Your task to perform on an android device: Add apple airpods to the cart on target, then select checkout. Image 0: 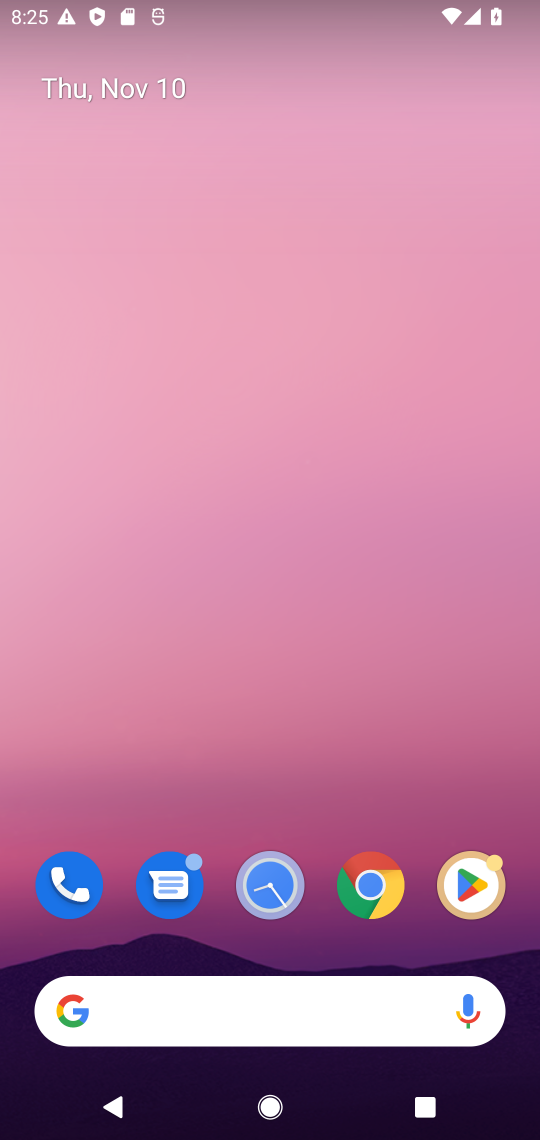
Step 0: click (368, 904)
Your task to perform on an android device: Add apple airpods to the cart on target, then select checkout. Image 1: 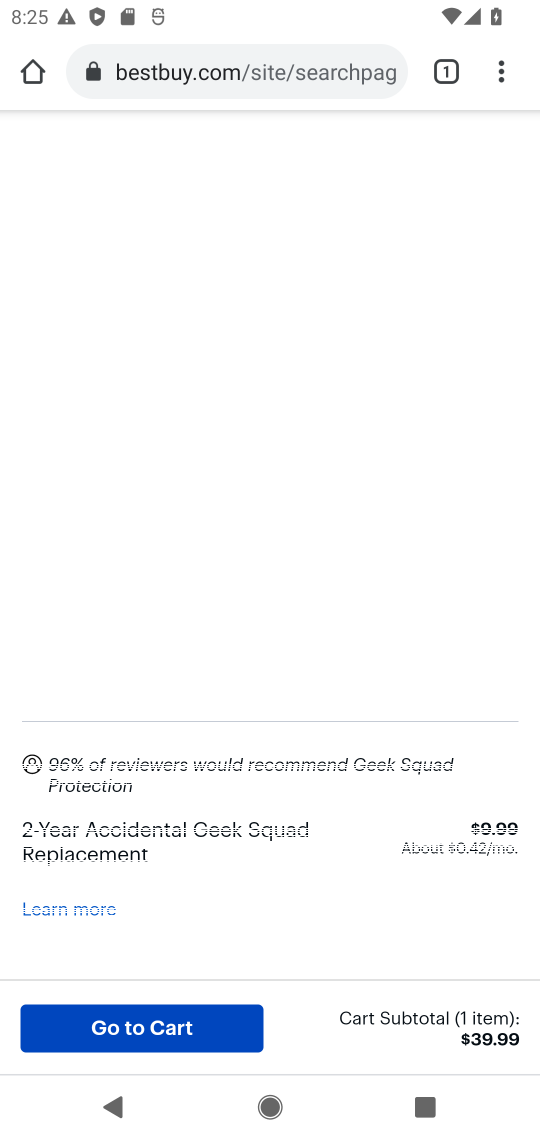
Step 1: click (436, 63)
Your task to perform on an android device: Add apple airpods to the cart on target, then select checkout. Image 2: 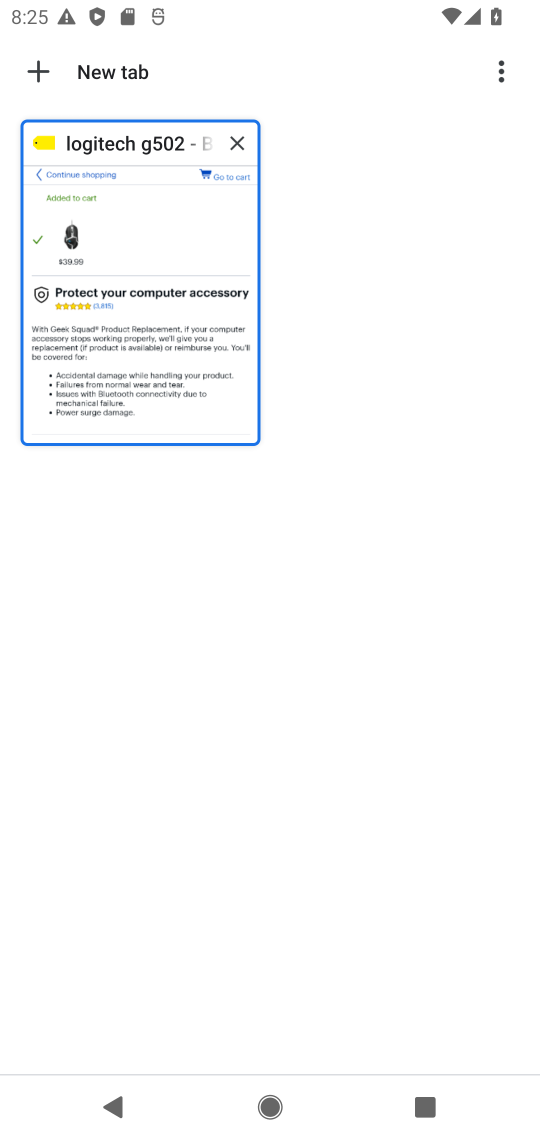
Step 2: click (37, 67)
Your task to perform on an android device: Add apple airpods to the cart on target, then select checkout. Image 3: 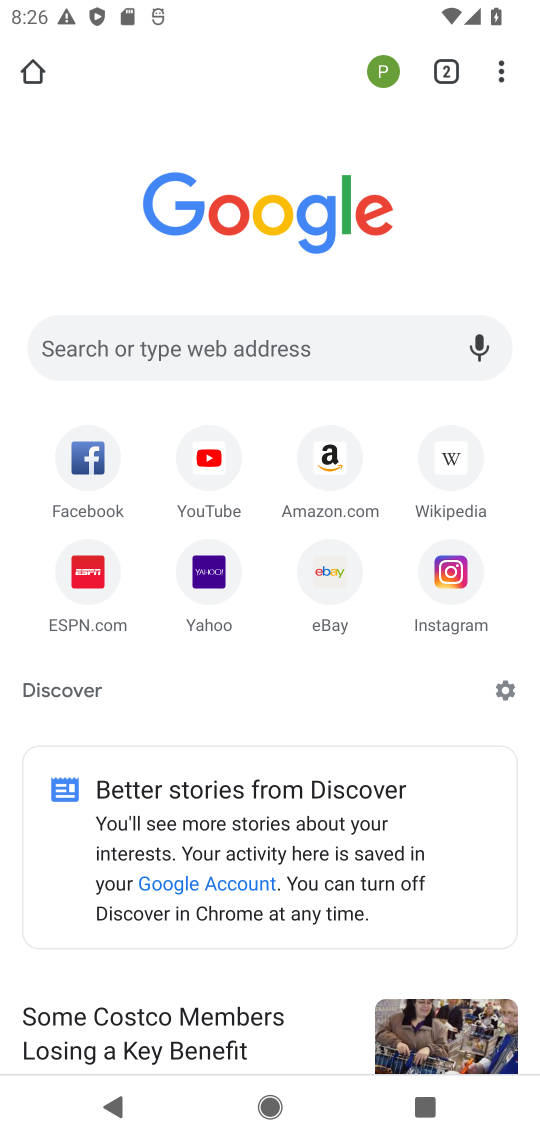
Step 3: click (120, 357)
Your task to perform on an android device: Add apple airpods to the cart on target, then select checkout. Image 4: 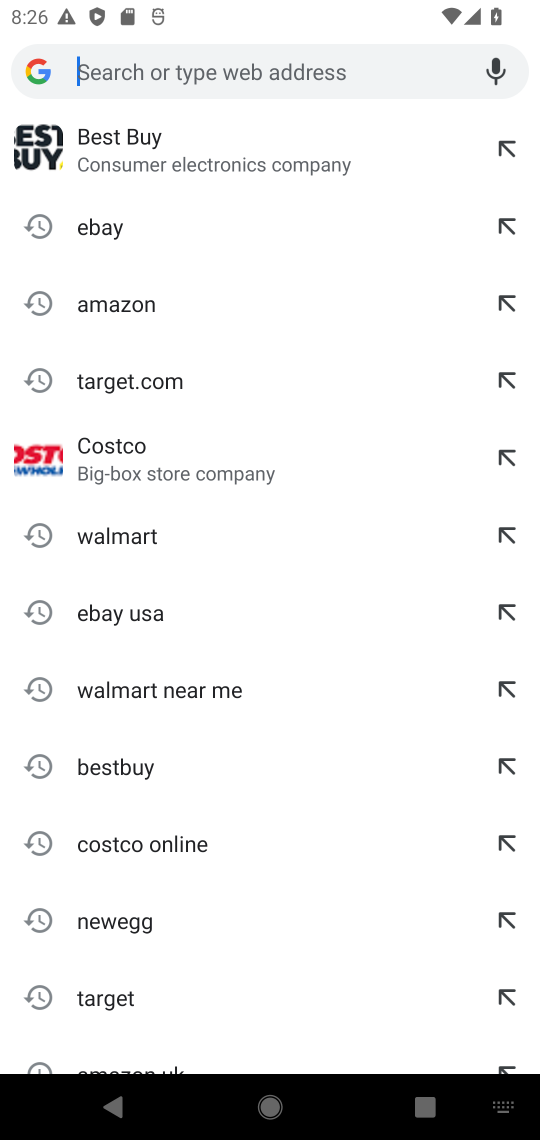
Step 4: click (131, 387)
Your task to perform on an android device: Add apple airpods to the cart on target, then select checkout. Image 5: 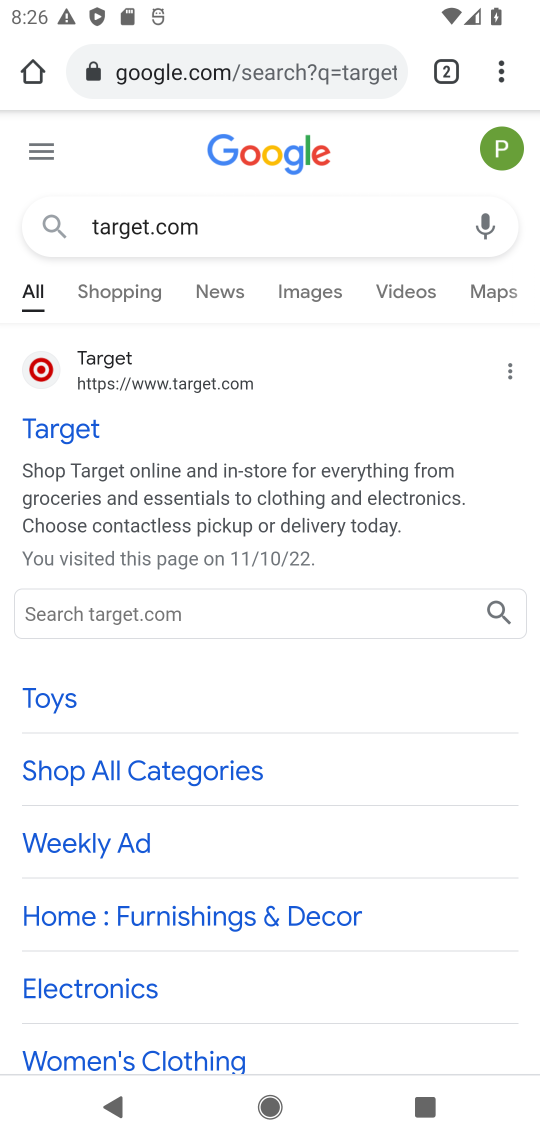
Step 5: click (99, 602)
Your task to perform on an android device: Add apple airpods to the cart on target, then select checkout. Image 6: 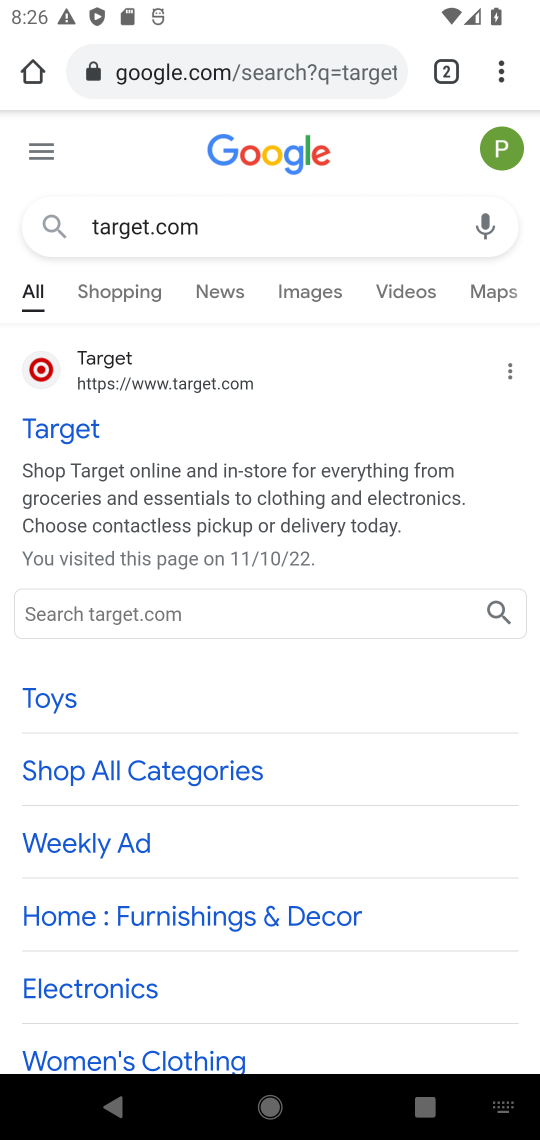
Step 6: type "apple airpods "
Your task to perform on an android device: Add apple airpods to the cart on target, then select checkout. Image 7: 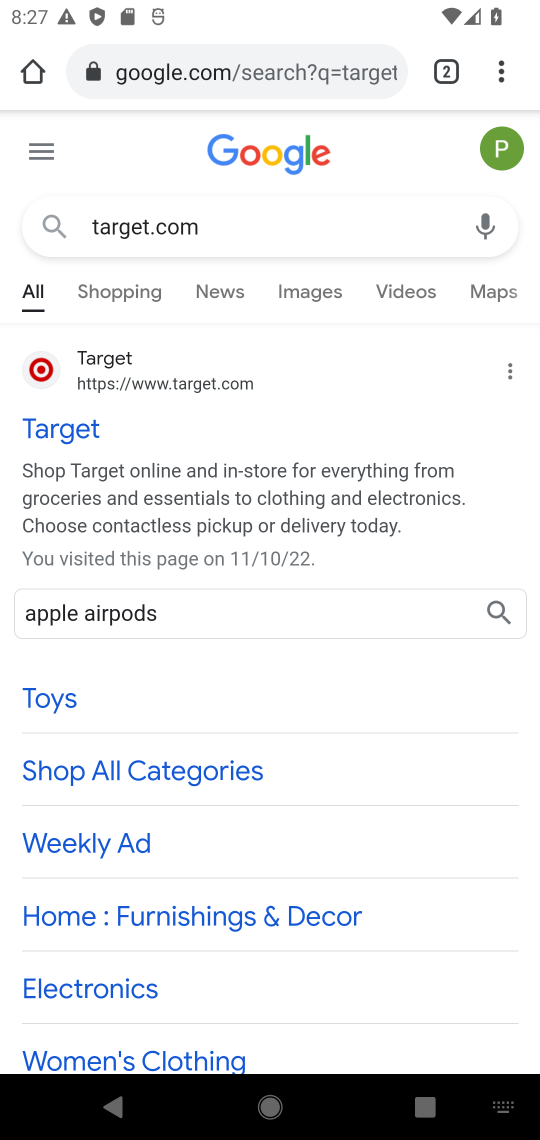
Step 7: click (505, 608)
Your task to perform on an android device: Add apple airpods to the cart on target, then select checkout. Image 8: 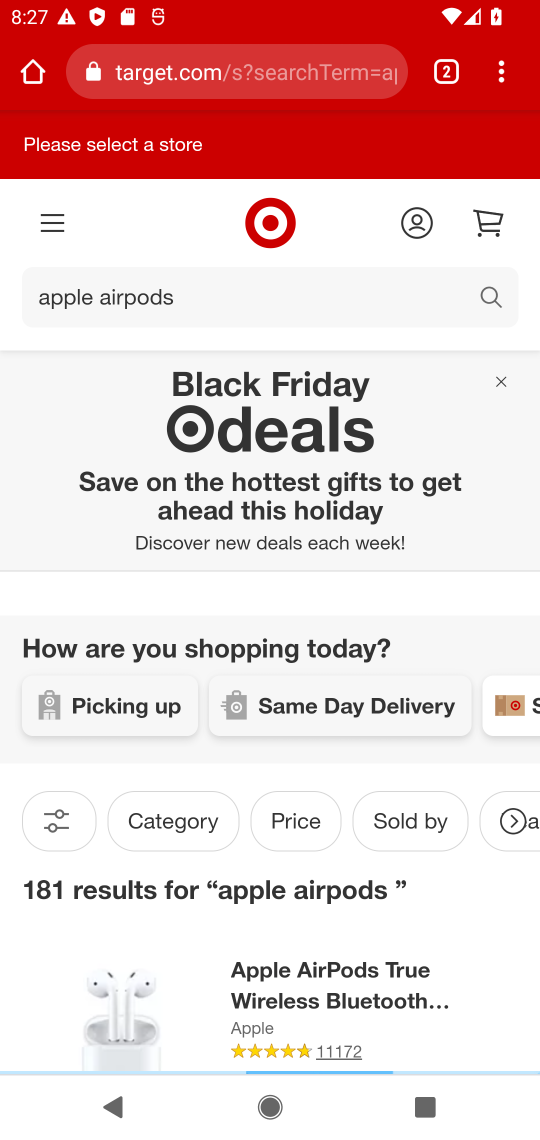
Step 8: drag from (344, 783) to (530, 348)
Your task to perform on an android device: Add apple airpods to the cart on target, then select checkout. Image 9: 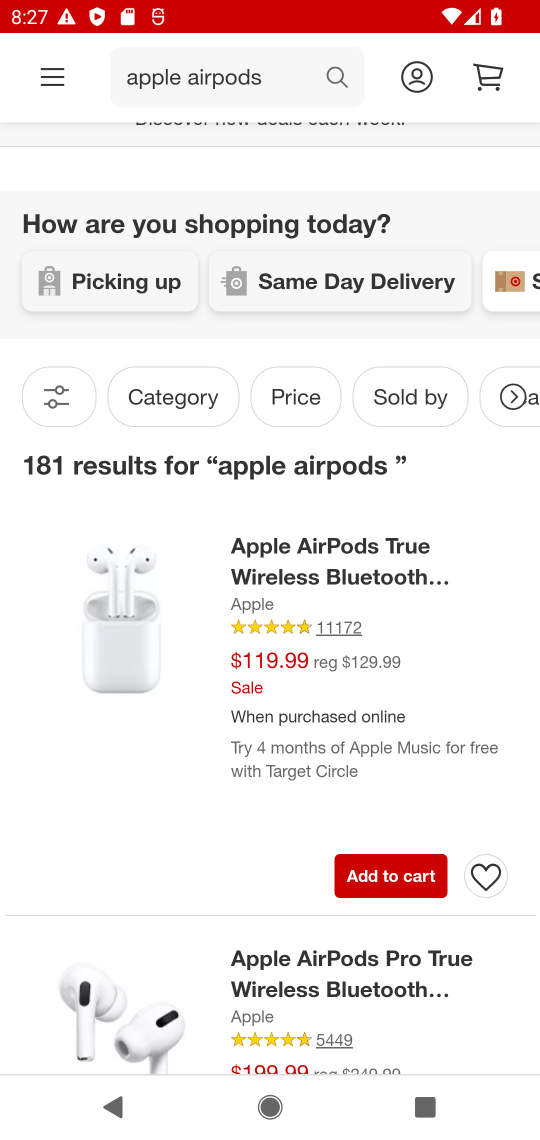
Step 9: click (405, 875)
Your task to perform on an android device: Add apple airpods to the cart on target, then select checkout. Image 10: 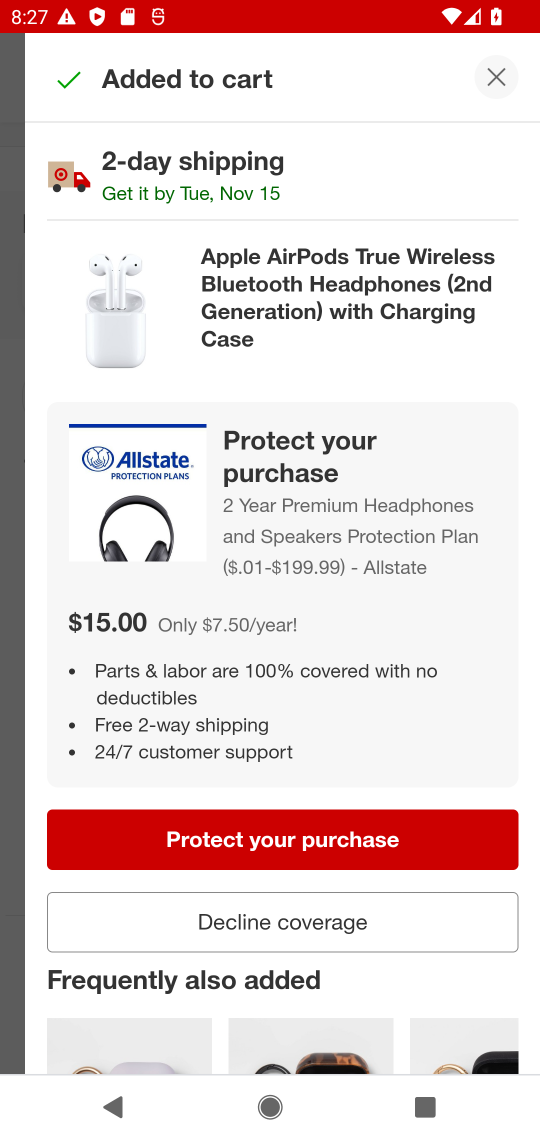
Step 10: task complete